Your task to perform on an android device: visit the assistant section in the google photos Image 0: 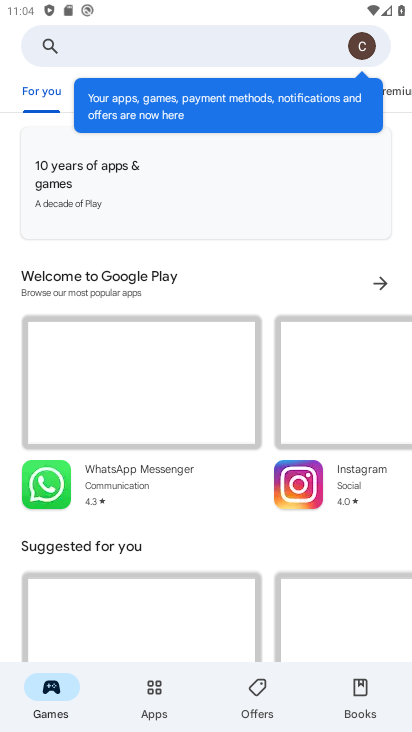
Step 0: press back button
Your task to perform on an android device: visit the assistant section in the google photos Image 1: 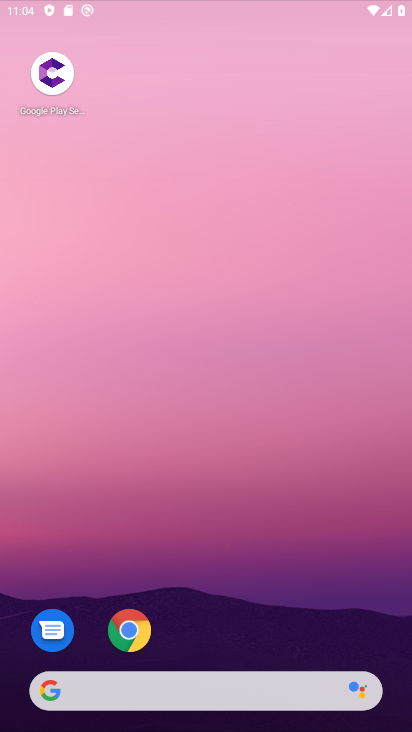
Step 1: press home button
Your task to perform on an android device: visit the assistant section in the google photos Image 2: 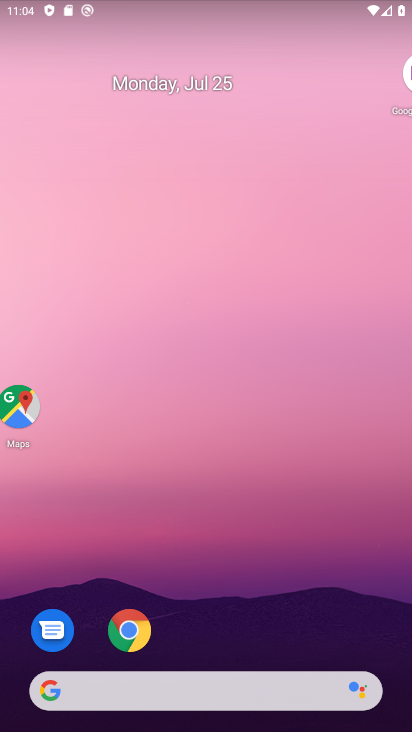
Step 2: drag from (221, 576) to (159, 312)
Your task to perform on an android device: visit the assistant section in the google photos Image 3: 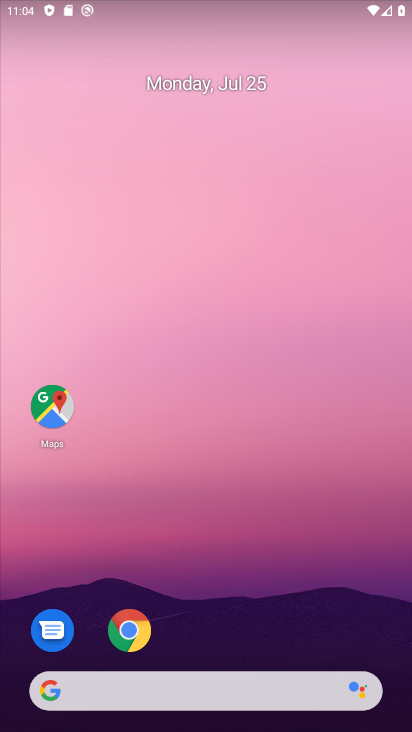
Step 3: drag from (160, 457) to (137, 311)
Your task to perform on an android device: visit the assistant section in the google photos Image 4: 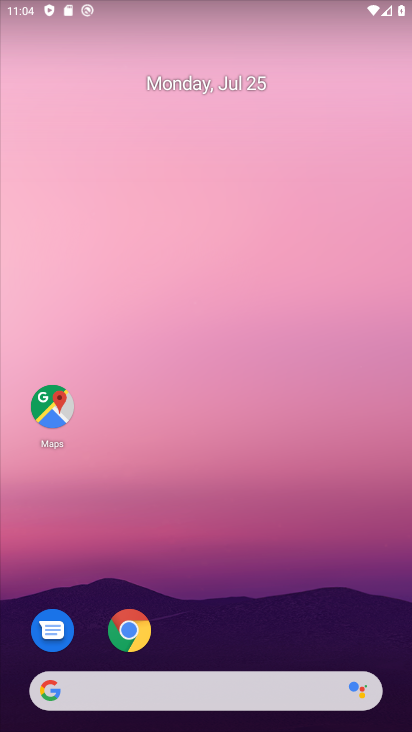
Step 4: drag from (224, 603) to (264, 240)
Your task to perform on an android device: visit the assistant section in the google photos Image 5: 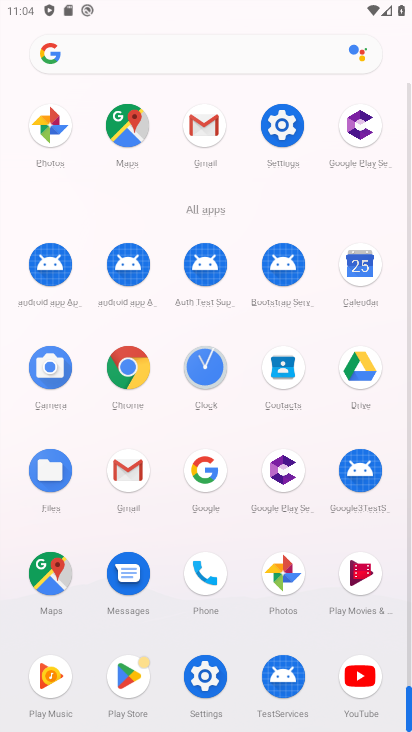
Step 5: click (270, 577)
Your task to perform on an android device: visit the assistant section in the google photos Image 6: 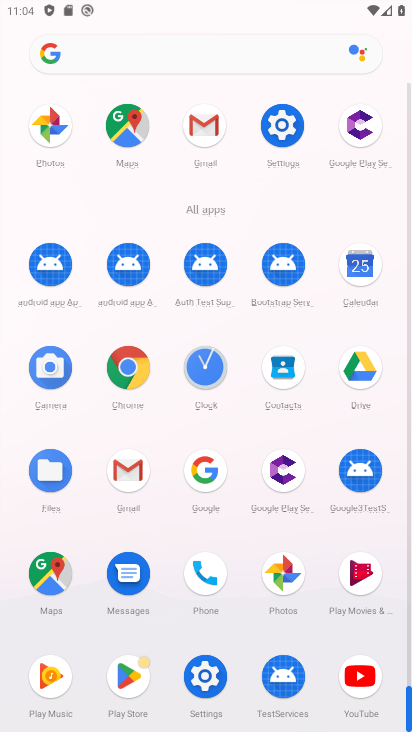
Step 6: click (271, 576)
Your task to perform on an android device: visit the assistant section in the google photos Image 7: 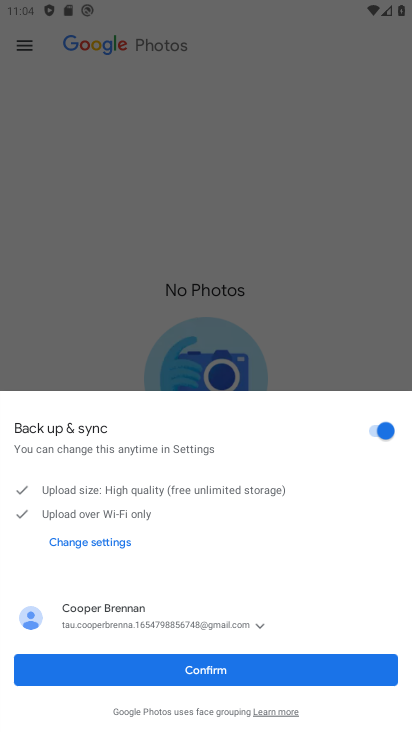
Step 7: click (236, 663)
Your task to perform on an android device: visit the assistant section in the google photos Image 8: 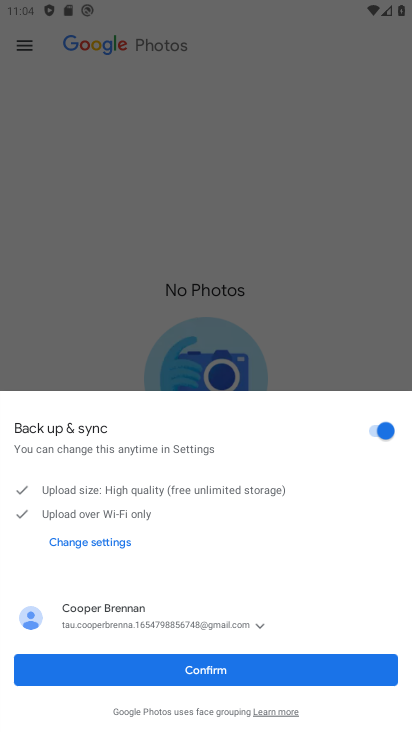
Step 8: click (229, 657)
Your task to perform on an android device: visit the assistant section in the google photos Image 9: 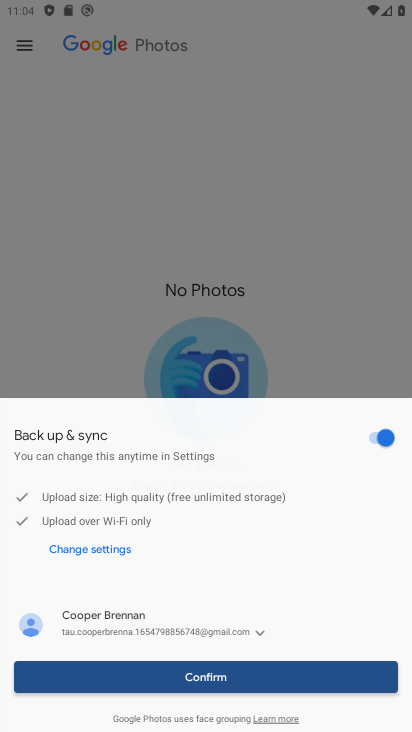
Step 9: click (228, 654)
Your task to perform on an android device: visit the assistant section in the google photos Image 10: 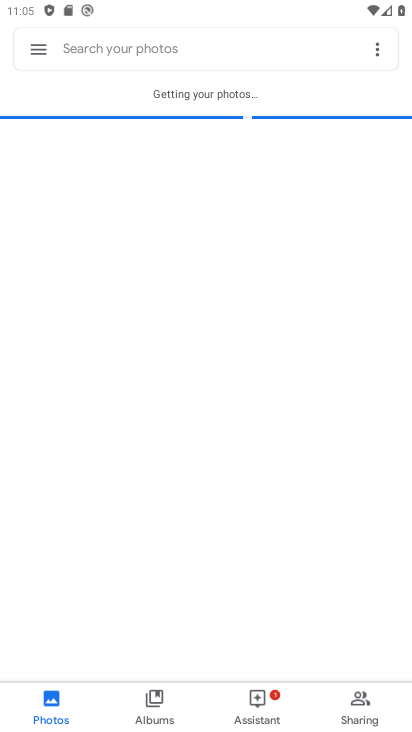
Step 10: click (241, 708)
Your task to perform on an android device: visit the assistant section in the google photos Image 11: 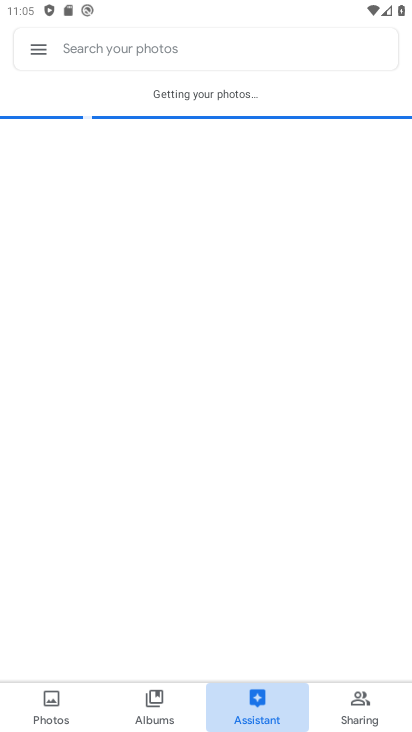
Step 11: click (250, 698)
Your task to perform on an android device: visit the assistant section in the google photos Image 12: 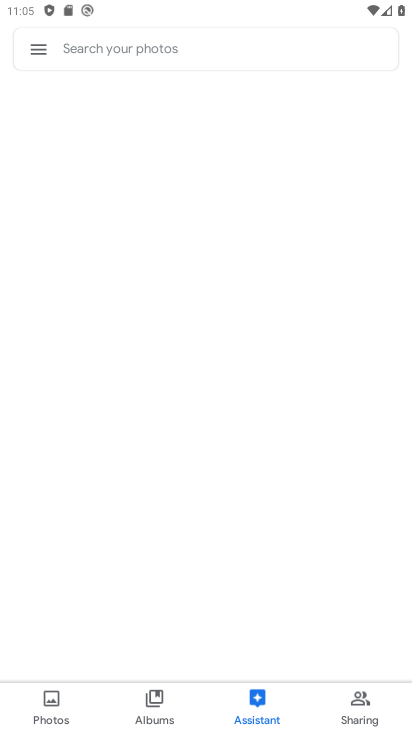
Step 12: click (253, 699)
Your task to perform on an android device: visit the assistant section in the google photos Image 13: 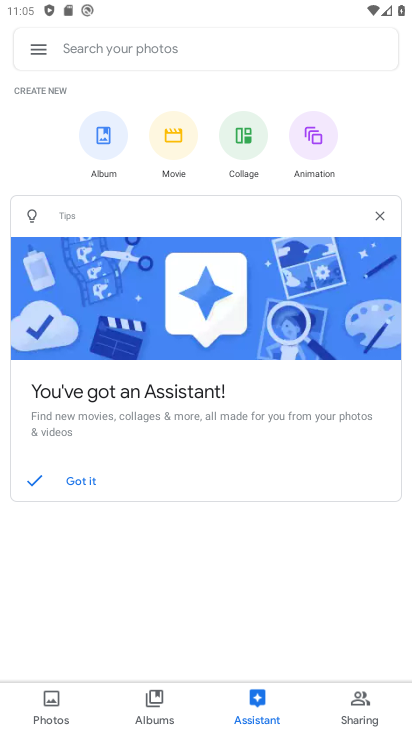
Step 13: task complete